Your task to perform on an android device: Open Wikipedia Image 0: 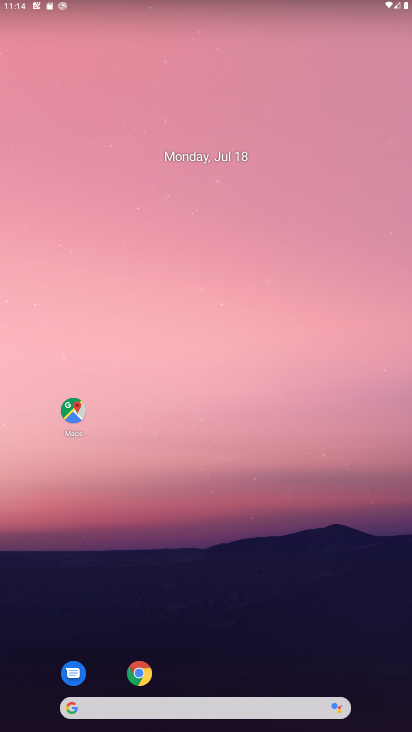
Step 0: click (140, 672)
Your task to perform on an android device: Open Wikipedia Image 1: 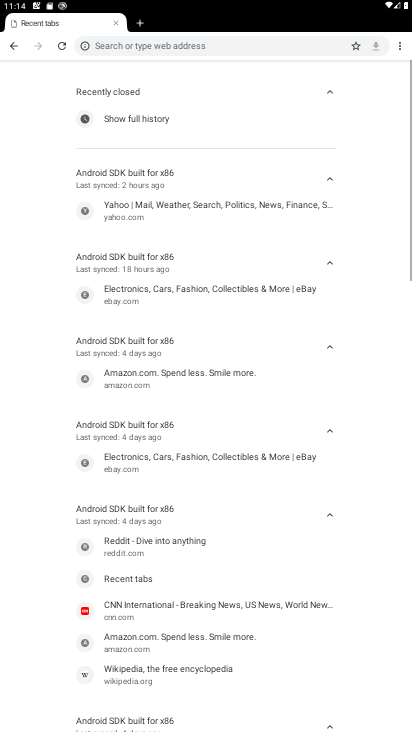
Step 1: click (139, 18)
Your task to perform on an android device: Open Wikipedia Image 2: 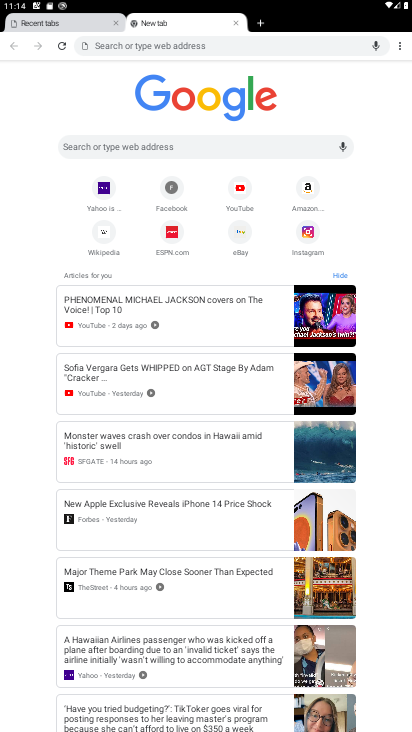
Step 2: click (99, 240)
Your task to perform on an android device: Open Wikipedia Image 3: 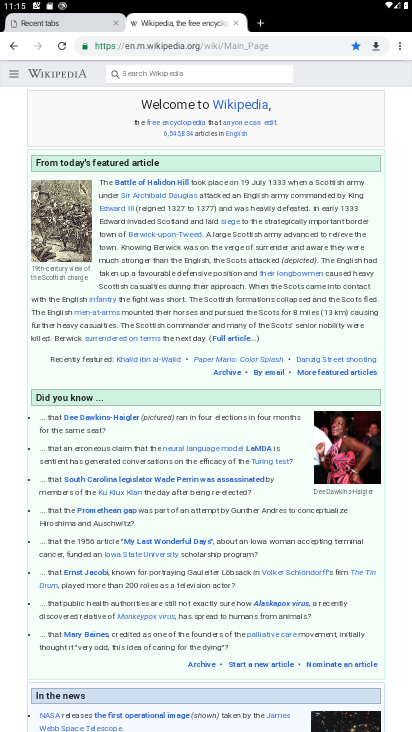
Step 3: task complete